Your task to perform on an android device: clear history in the chrome app Image 0: 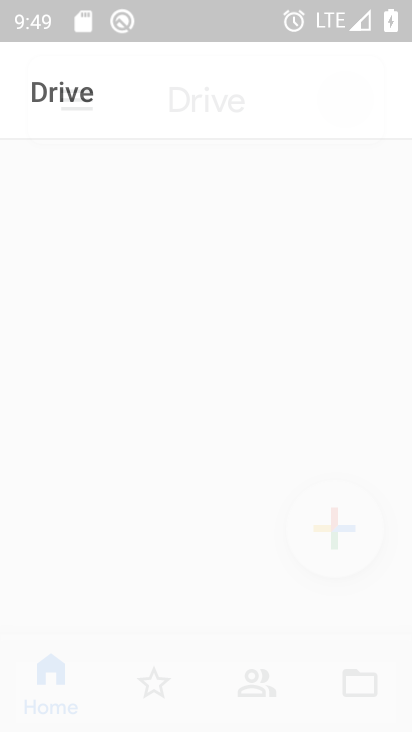
Step 0: press home button
Your task to perform on an android device: clear history in the chrome app Image 1: 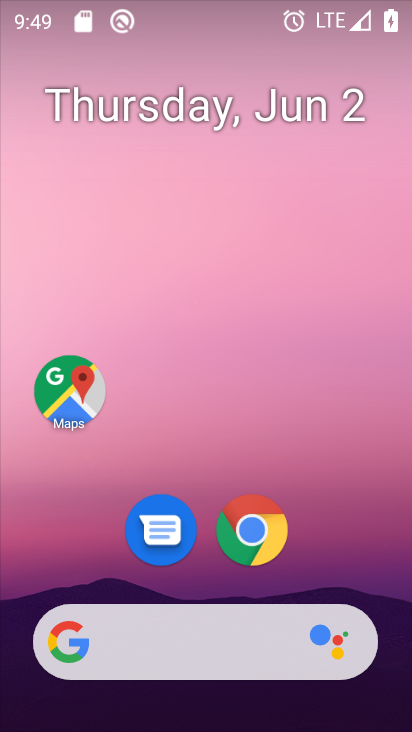
Step 1: click (249, 530)
Your task to perform on an android device: clear history in the chrome app Image 2: 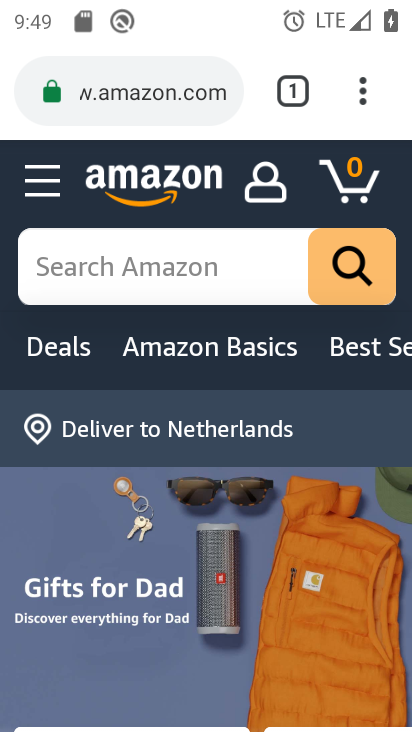
Step 2: click (360, 93)
Your task to perform on an android device: clear history in the chrome app Image 3: 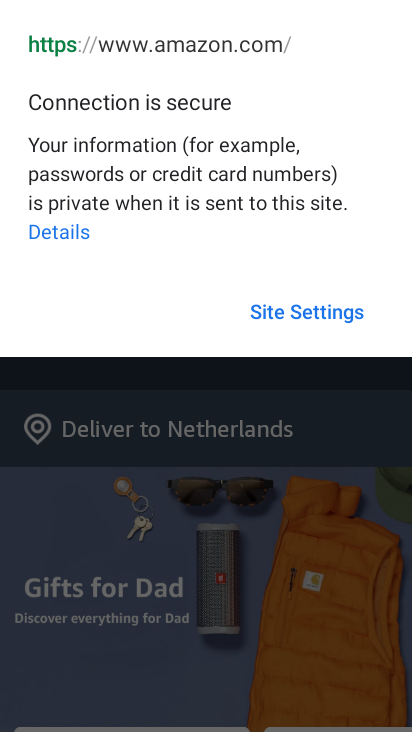
Step 3: click (149, 407)
Your task to perform on an android device: clear history in the chrome app Image 4: 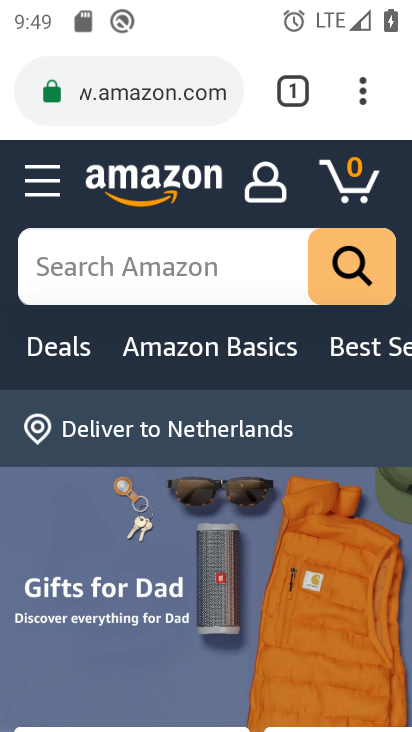
Step 4: click (296, 87)
Your task to perform on an android device: clear history in the chrome app Image 5: 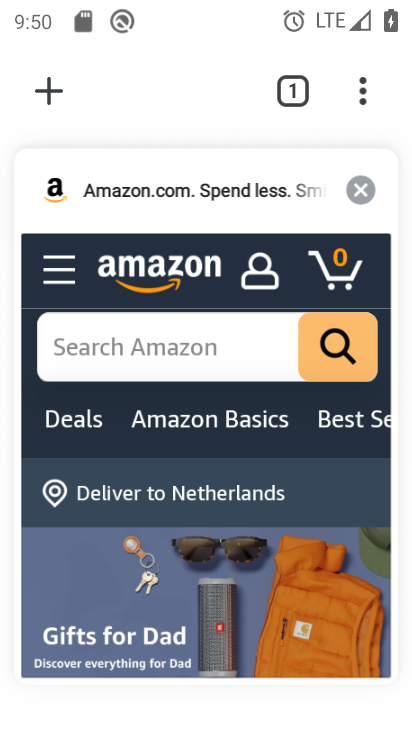
Step 5: click (353, 194)
Your task to perform on an android device: clear history in the chrome app Image 6: 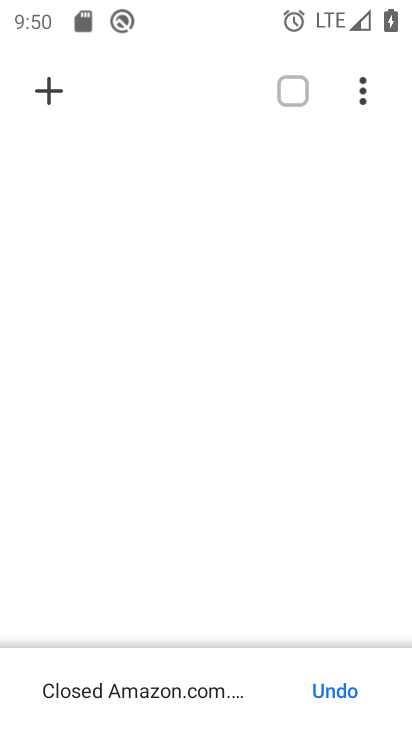
Step 6: click (34, 96)
Your task to perform on an android device: clear history in the chrome app Image 7: 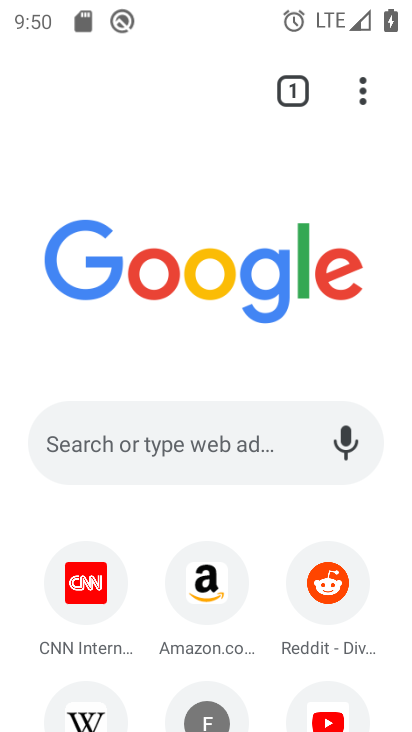
Step 7: click (366, 91)
Your task to perform on an android device: clear history in the chrome app Image 8: 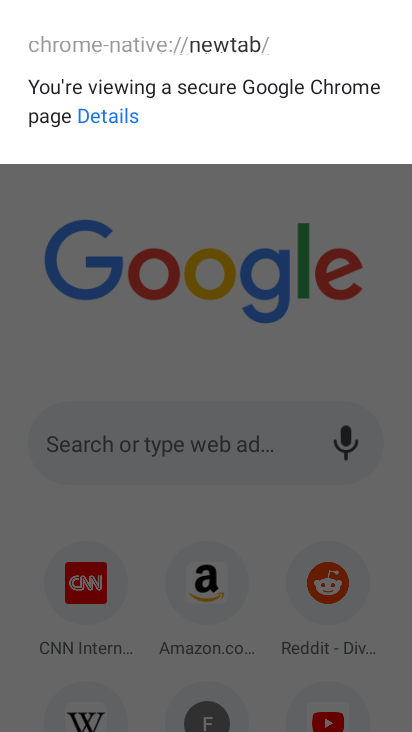
Step 8: click (8, 293)
Your task to perform on an android device: clear history in the chrome app Image 9: 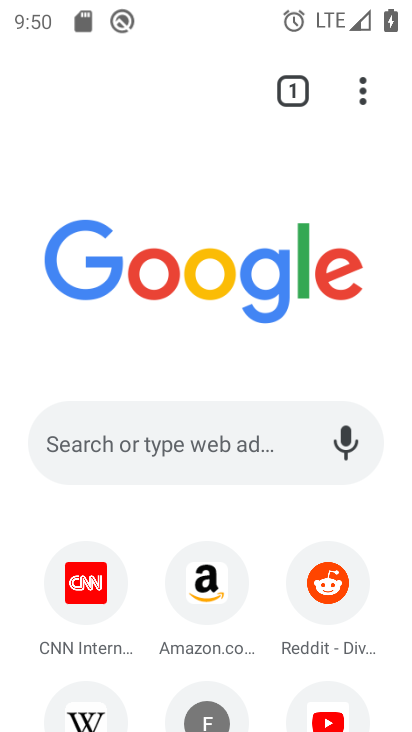
Step 9: click (365, 97)
Your task to perform on an android device: clear history in the chrome app Image 10: 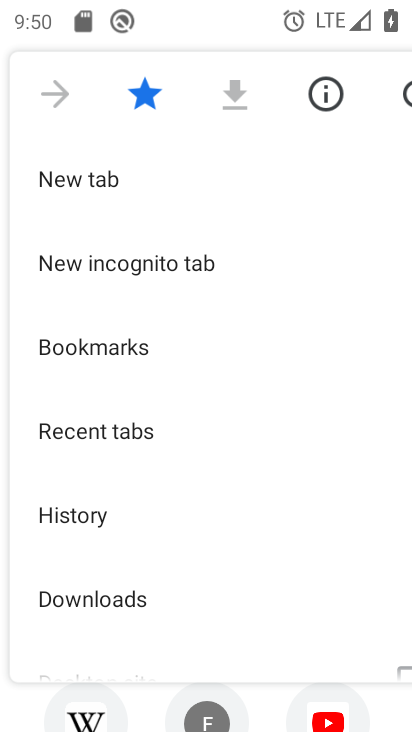
Step 10: click (77, 513)
Your task to perform on an android device: clear history in the chrome app Image 11: 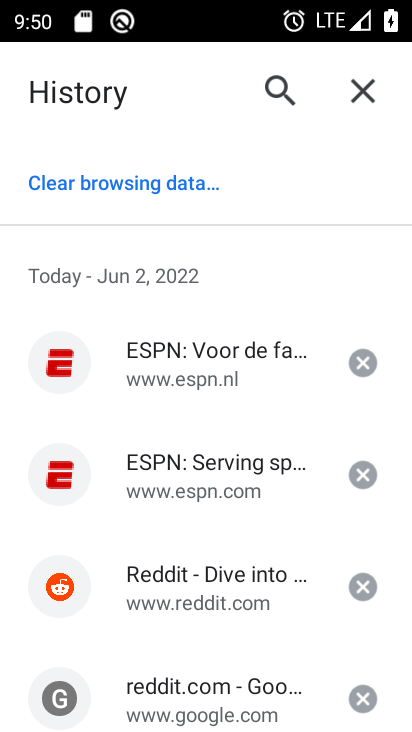
Step 11: click (112, 184)
Your task to perform on an android device: clear history in the chrome app Image 12: 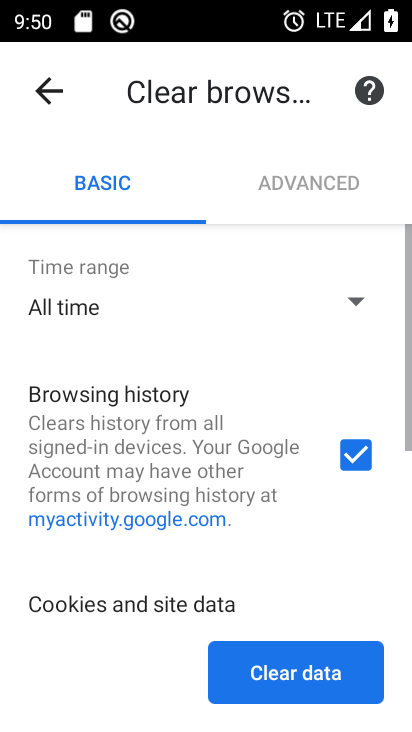
Step 12: click (266, 682)
Your task to perform on an android device: clear history in the chrome app Image 13: 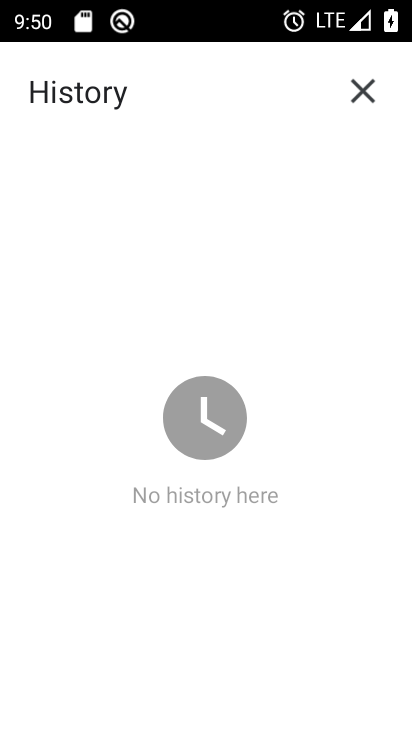
Step 13: task complete